Your task to perform on an android device: Go to Android settings Image 0: 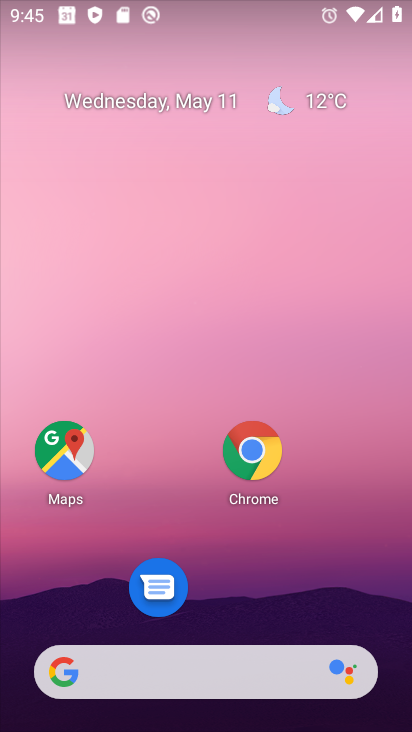
Step 0: drag from (356, 498) to (328, 0)
Your task to perform on an android device: Go to Android settings Image 1: 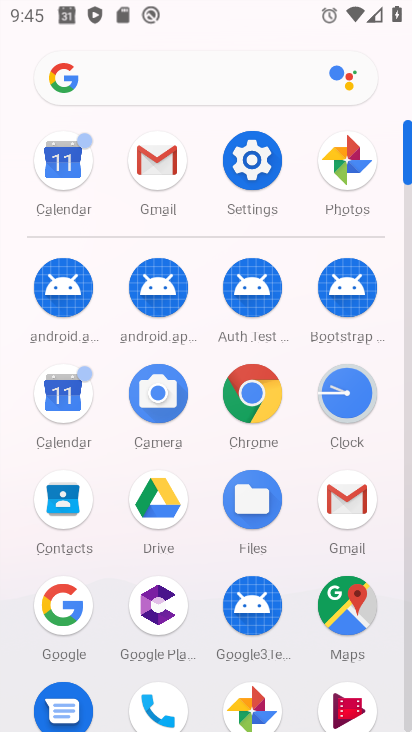
Step 1: click (250, 162)
Your task to perform on an android device: Go to Android settings Image 2: 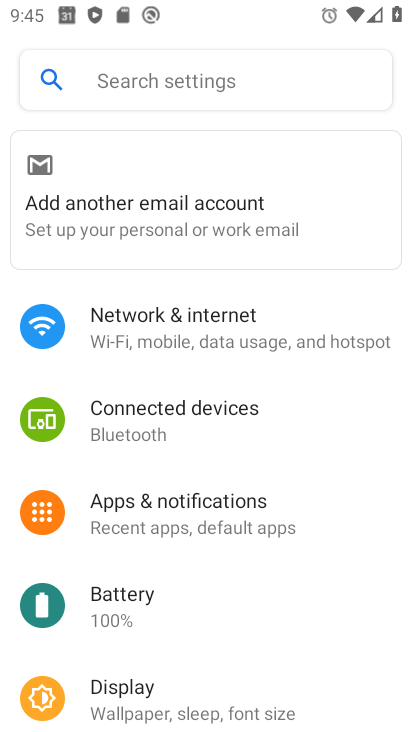
Step 2: task complete